Your task to perform on an android device: turn off notifications in google photos Image 0: 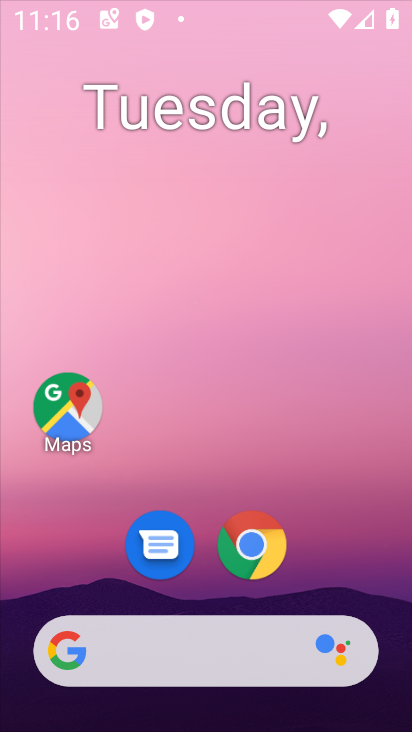
Step 0: click (409, 118)
Your task to perform on an android device: turn off notifications in google photos Image 1: 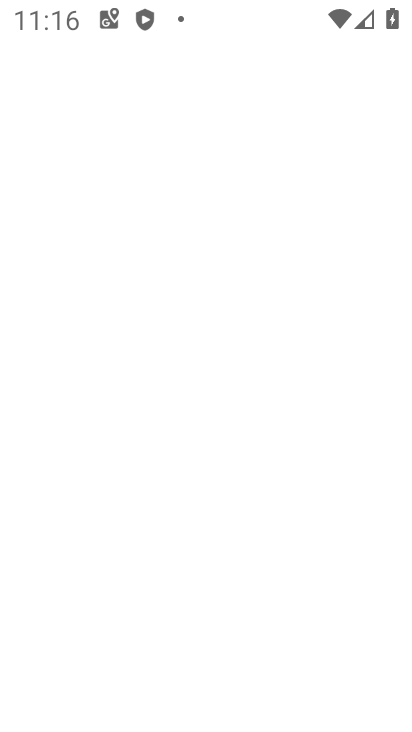
Step 1: click (328, 555)
Your task to perform on an android device: turn off notifications in google photos Image 2: 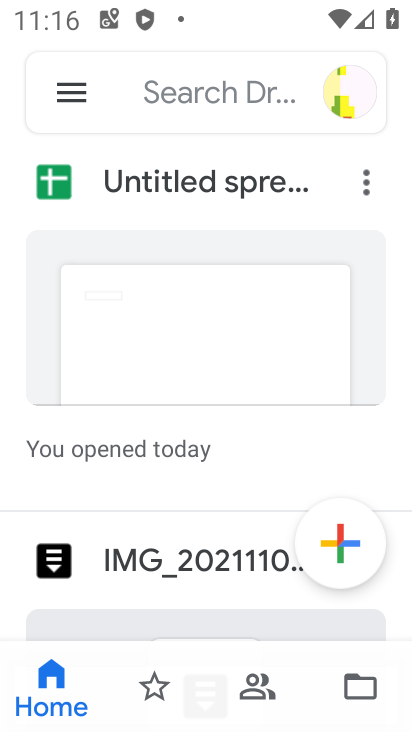
Step 2: press home button
Your task to perform on an android device: turn off notifications in google photos Image 3: 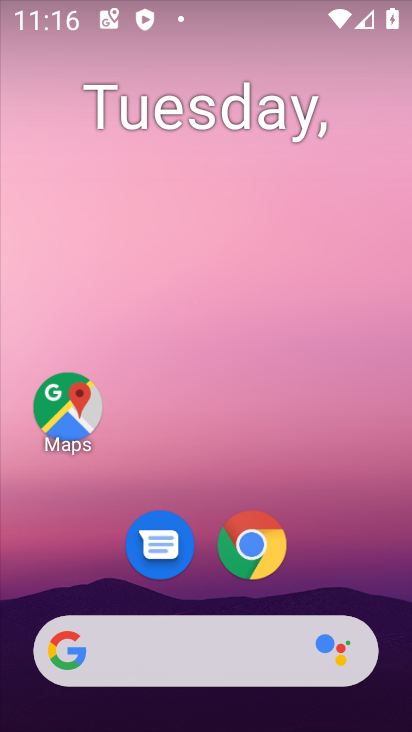
Step 3: drag from (349, 439) to (377, 99)
Your task to perform on an android device: turn off notifications in google photos Image 4: 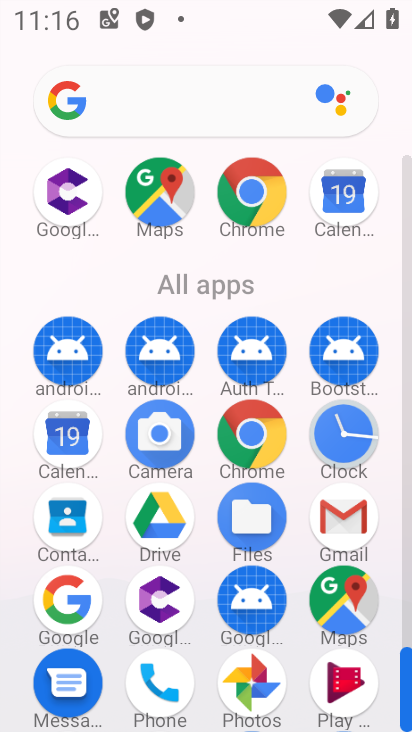
Step 4: click (234, 657)
Your task to perform on an android device: turn off notifications in google photos Image 5: 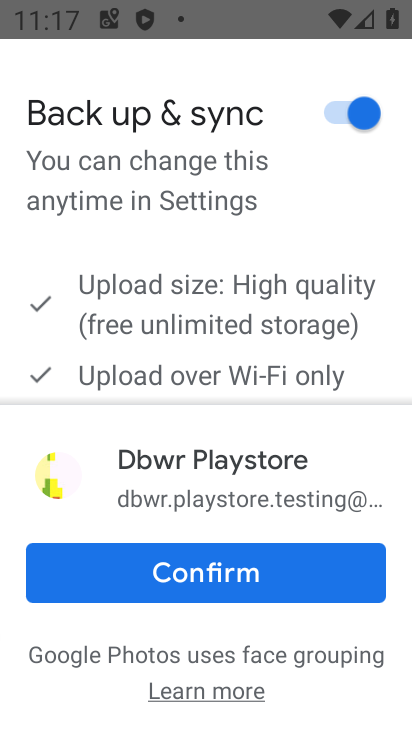
Step 5: click (300, 563)
Your task to perform on an android device: turn off notifications in google photos Image 6: 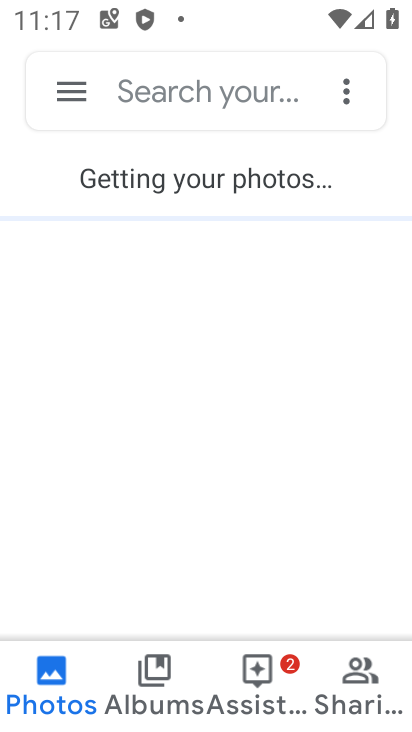
Step 6: click (74, 85)
Your task to perform on an android device: turn off notifications in google photos Image 7: 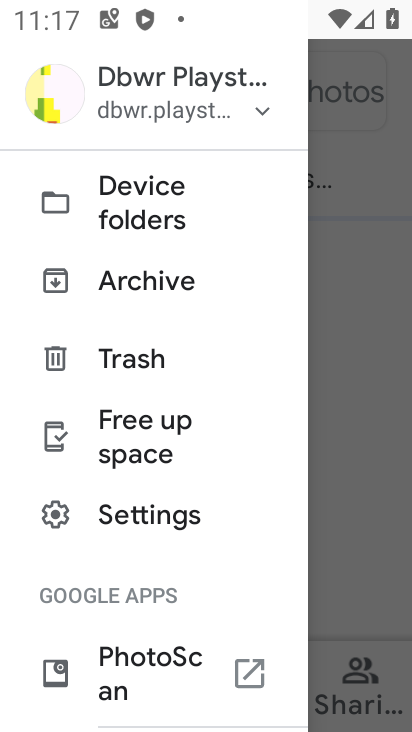
Step 7: click (118, 505)
Your task to perform on an android device: turn off notifications in google photos Image 8: 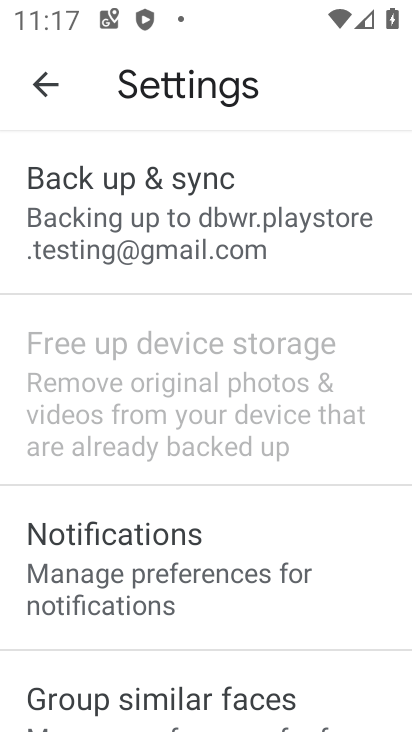
Step 8: click (123, 559)
Your task to perform on an android device: turn off notifications in google photos Image 9: 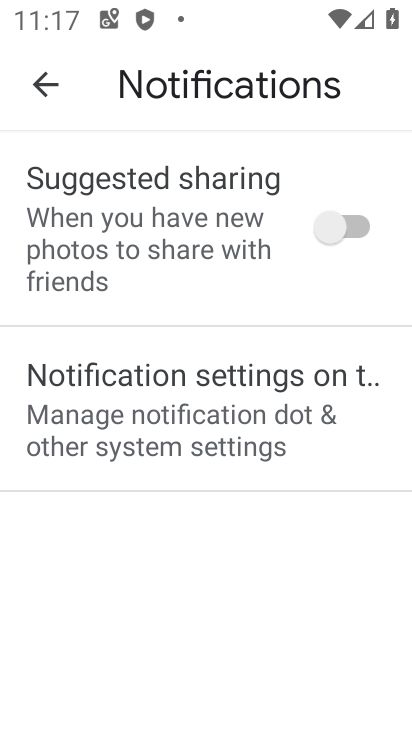
Step 9: task complete